Your task to perform on an android device: Show me popular videos on Youtube Image 0: 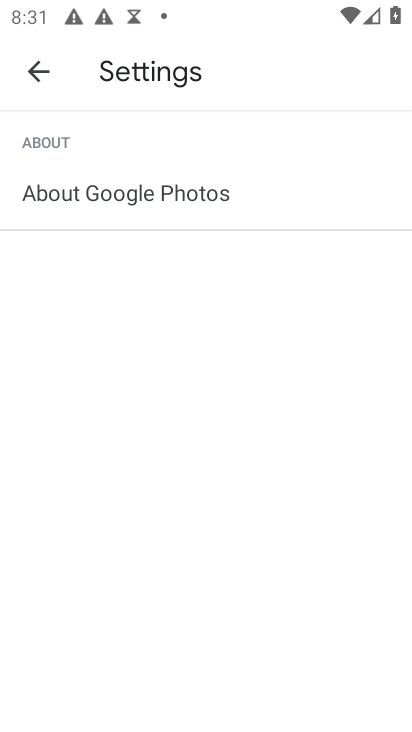
Step 0: press home button
Your task to perform on an android device: Show me popular videos on Youtube Image 1: 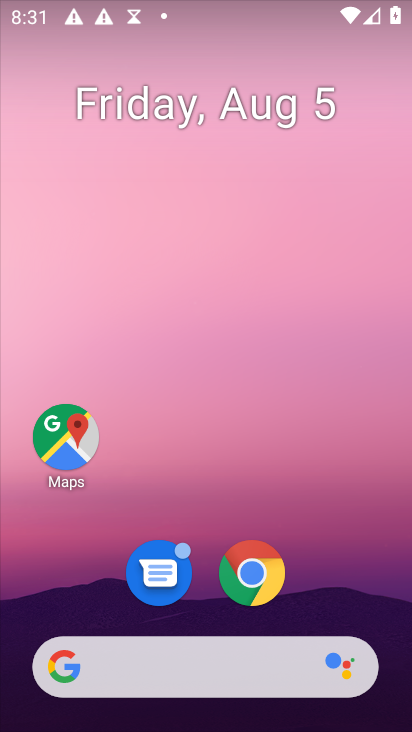
Step 1: drag from (188, 678) to (193, 117)
Your task to perform on an android device: Show me popular videos on Youtube Image 2: 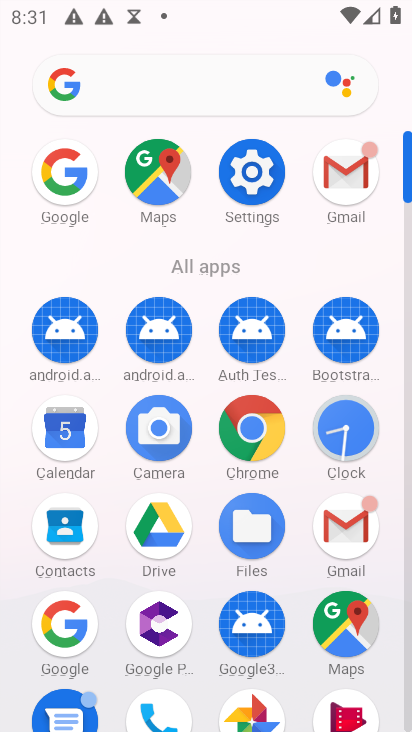
Step 2: drag from (195, 600) to (193, 263)
Your task to perform on an android device: Show me popular videos on Youtube Image 3: 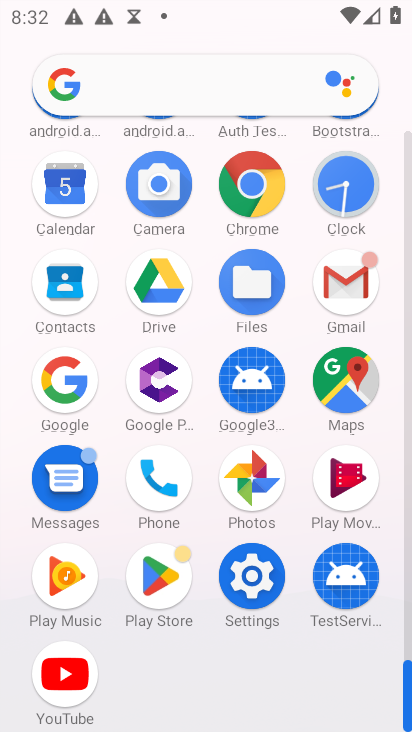
Step 3: click (64, 669)
Your task to perform on an android device: Show me popular videos on Youtube Image 4: 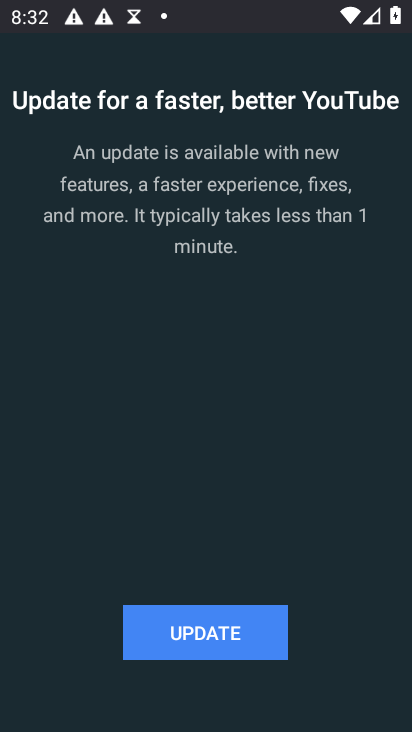
Step 4: click (198, 632)
Your task to perform on an android device: Show me popular videos on Youtube Image 5: 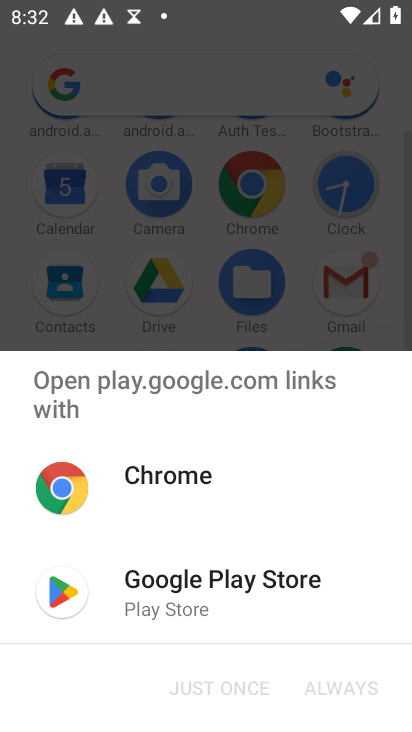
Step 5: click (193, 587)
Your task to perform on an android device: Show me popular videos on Youtube Image 6: 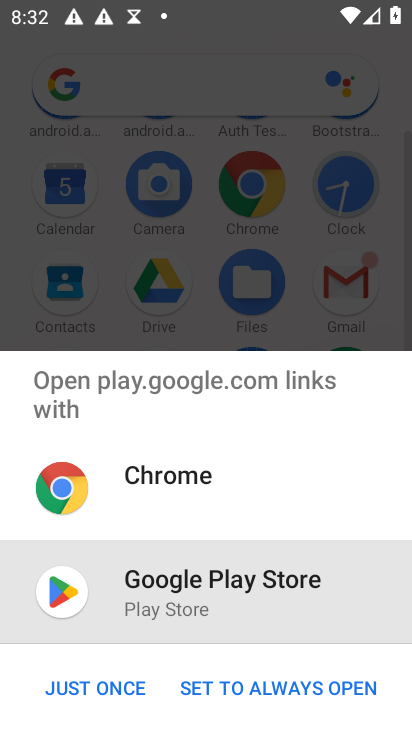
Step 6: click (124, 686)
Your task to perform on an android device: Show me popular videos on Youtube Image 7: 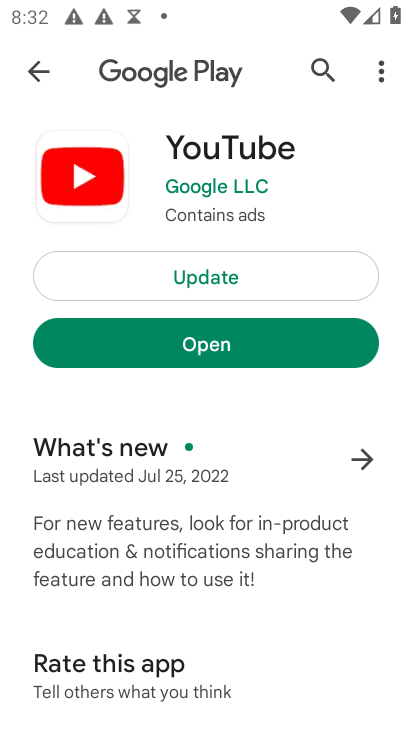
Step 7: click (214, 273)
Your task to perform on an android device: Show me popular videos on Youtube Image 8: 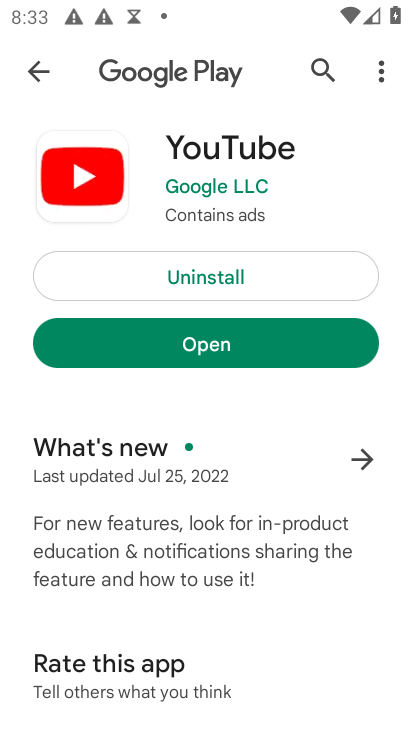
Step 8: click (208, 349)
Your task to perform on an android device: Show me popular videos on Youtube Image 9: 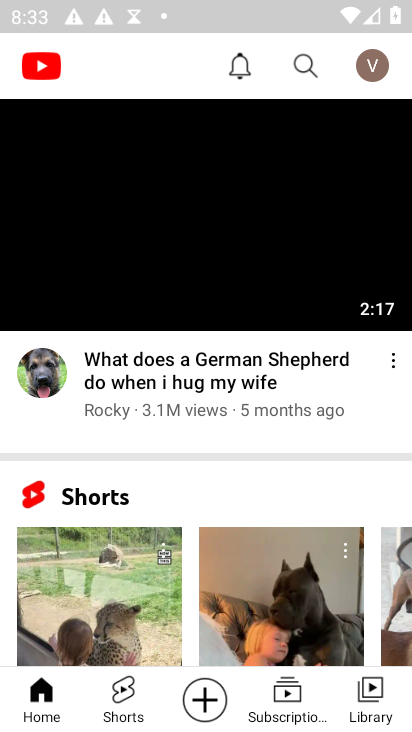
Step 9: click (296, 61)
Your task to perform on an android device: Show me popular videos on Youtube Image 10: 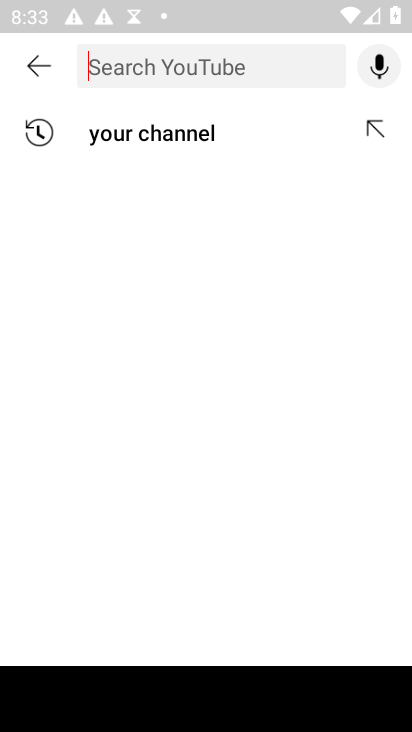
Step 10: type "popular video"
Your task to perform on an android device: Show me popular videos on Youtube Image 11: 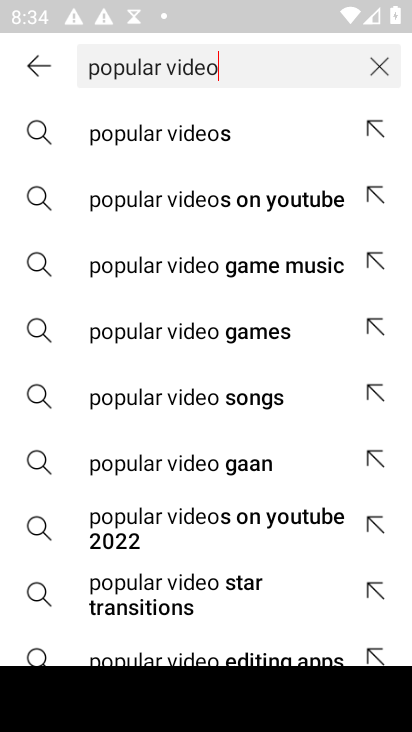
Step 11: click (195, 137)
Your task to perform on an android device: Show me popular videos on Youtube Image 12: 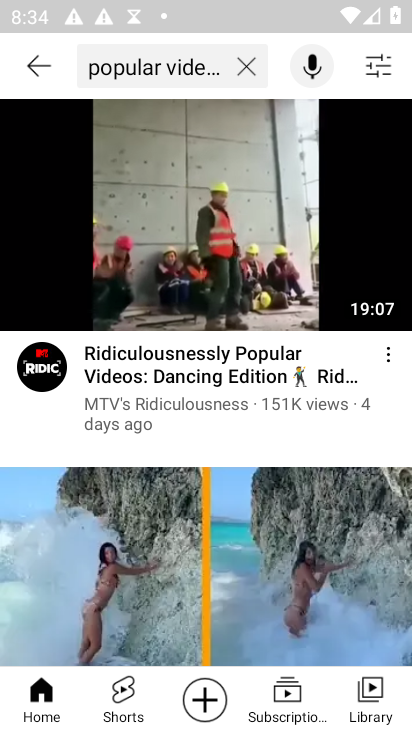
Step 12: task complete